Your task to perform on an android device: change keyboard looks Image 0: 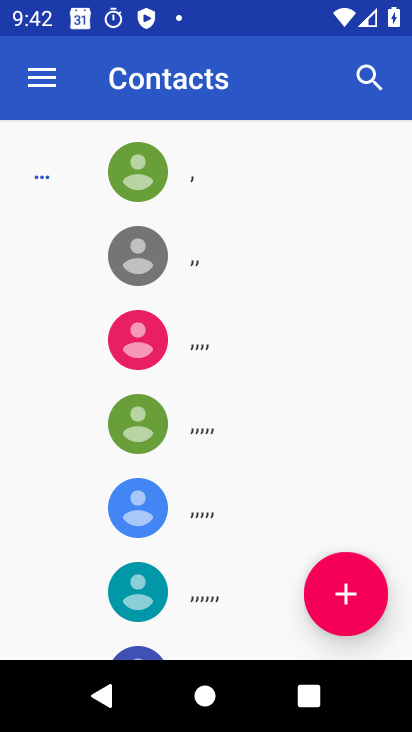
Step 0: drag from (180, 616) to (297, 261)
Your task to perform on an android device: change keyboard looks Image 1: 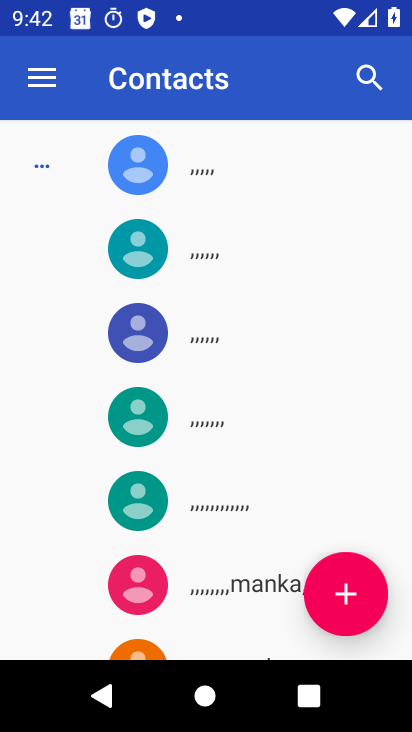
Step 1: press home button
Your task to perform on an android device: change keyboard looks Image 2: 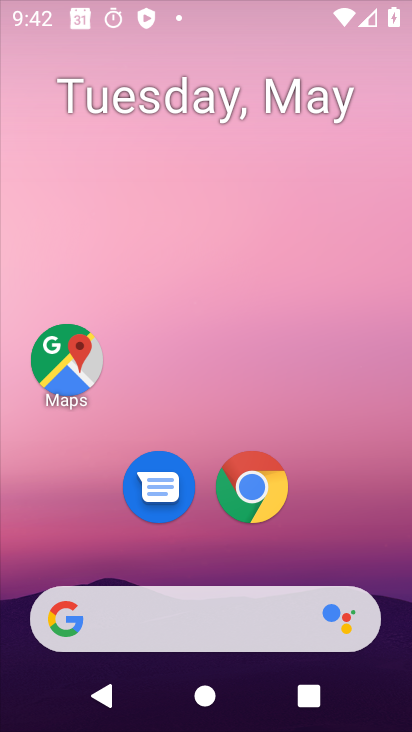
Step 2: drag from (178, 605) to (247, 179)
Your task to perform on an android device: change keyboard looks Image 3: 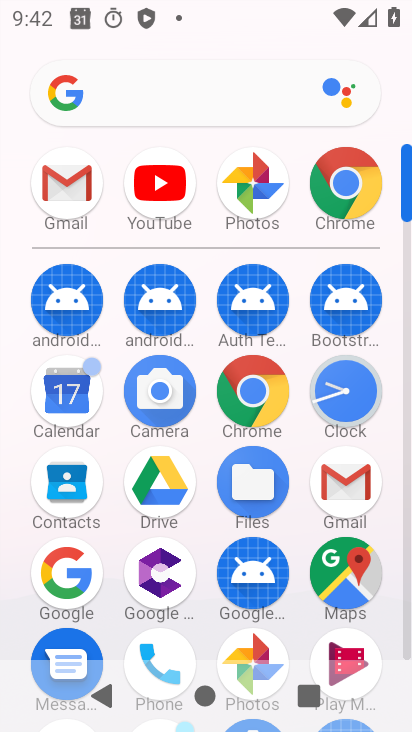
Step 3: drag from (199, 651) to (219, 252)
Your task to perform on an android device: change keyboard looks Image 4: 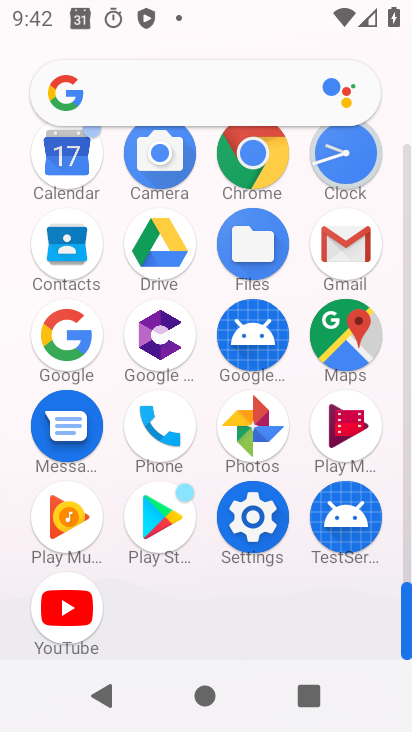
Step 4: click (244, 512)
Your task to perform on an android device: change keyboard looks Image 5: 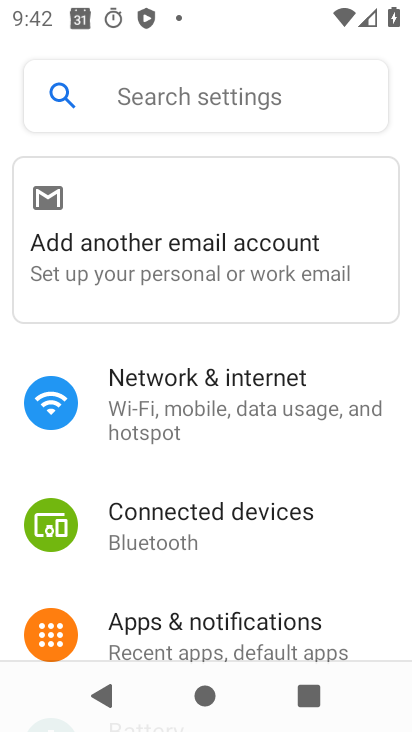
Step 5: drag from (110, 634) to (275, 80)
Your task to perform on an android device: change keyboard looks Image 6: 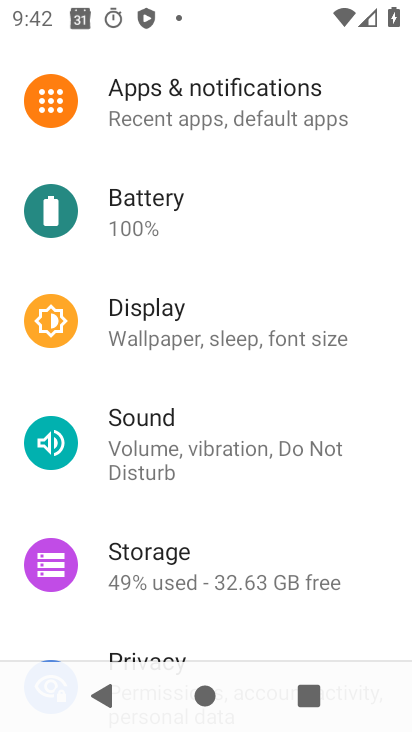
Step 6: drag from (202, 547) to (319, 89)
Your task to perform on an android device: change keyboard looks Image 7: 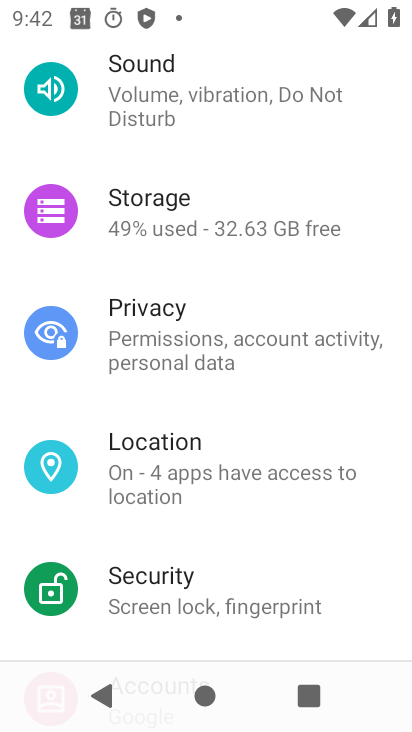
Step 7: drag from (204, 558) to (329, 117)
Your task to perform on an android device: change keyboard looks Image 8: 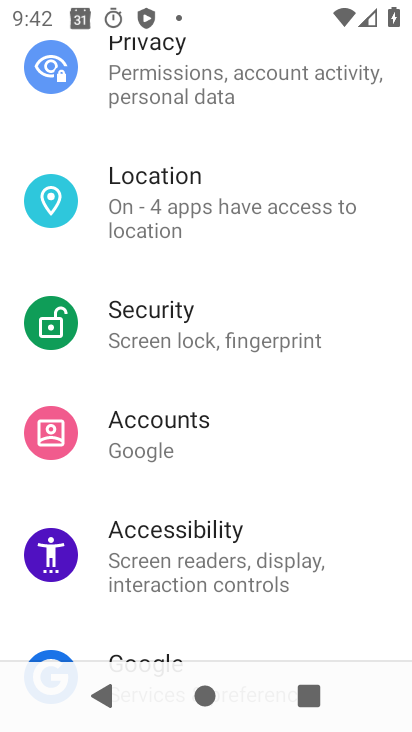
Step 8: drag from (227, 508) to (315, 187)
Your task to perform on an android device: change keyboard looks Image 9: 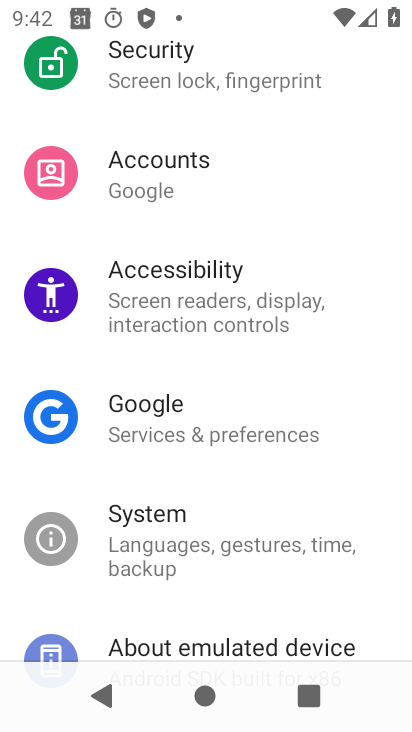
Step 9: click (164, 546)
Your task to perform on an android device: change keyboard looks Image 10: 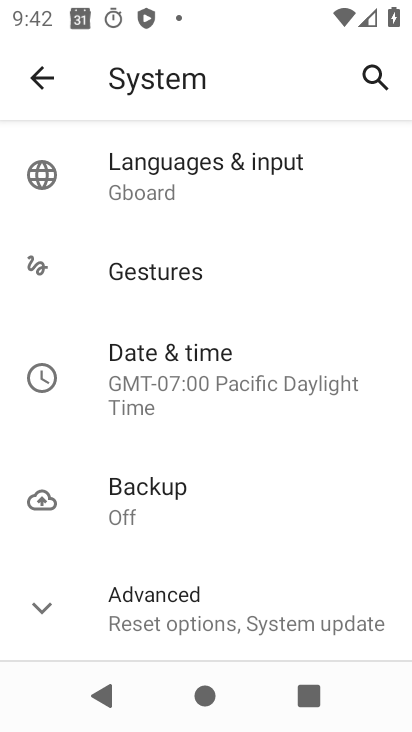
Step 10: drag from (228, 496) to (259, 72)
Your task to perform on an android device: change keyboard looks Image 11: 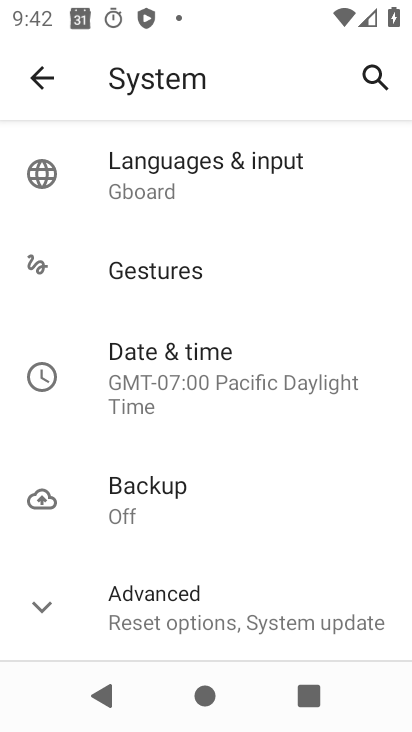
Step 11: drag from (202, 533) to (290, 215)
Your task to perform on an android device: change keyboard looks Image 12: 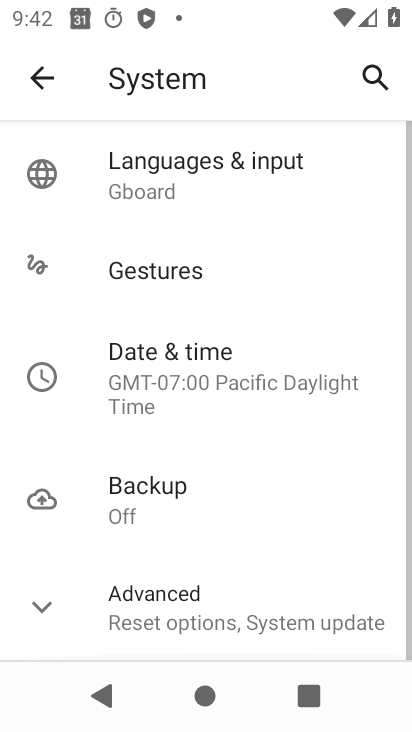
Step 12: click (230, 192)
Your task to perform on an android device: change keyboard looks Image 13: 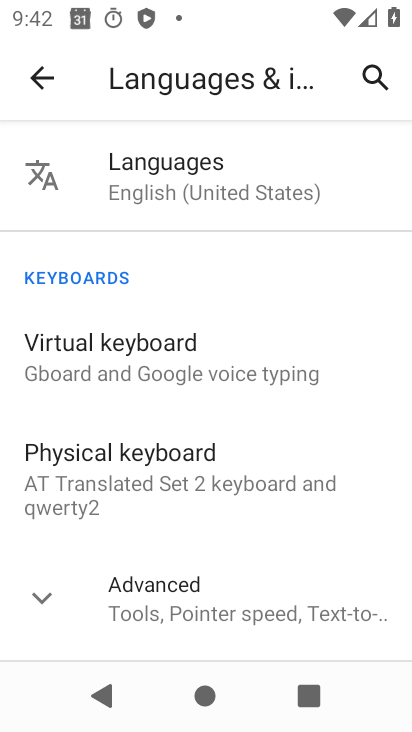
Step 13: click (181, 358)
Your task to perform on an android device: change keyboard looks Image 14: 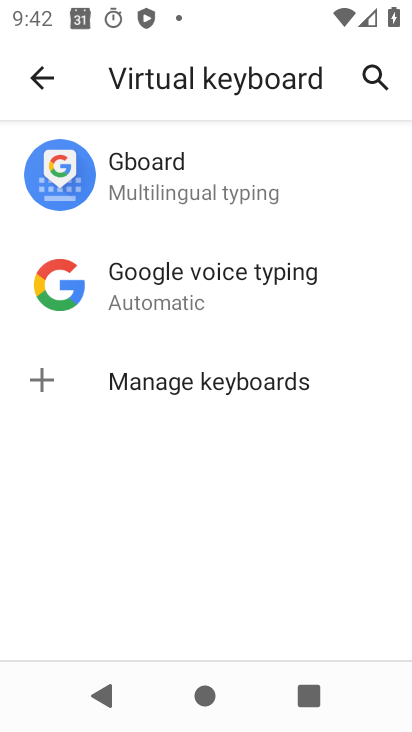
Step 14: click (213, 175)
Your task to perform on an android device: change keyboard looks Image 15: 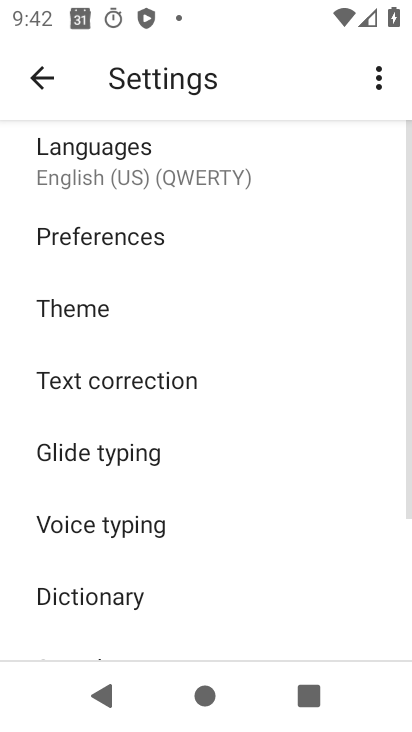
Step 15: click (103, 313)
Your task to perform on an android device: change keyboard looks Image 16: 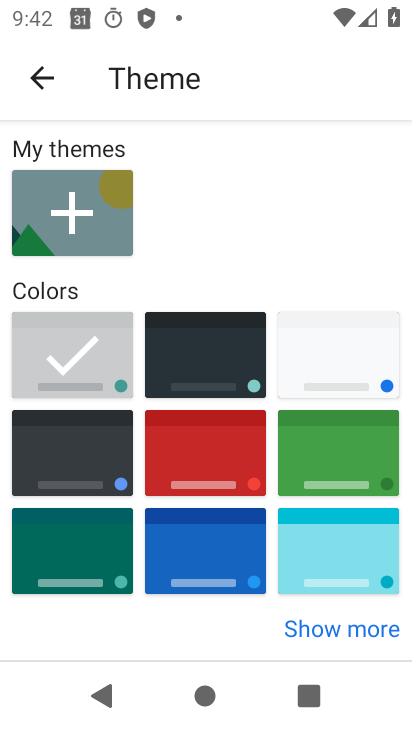
Step 16: click (320, 447)
Your task to perform on an android device: change keyboard looks Image 17: 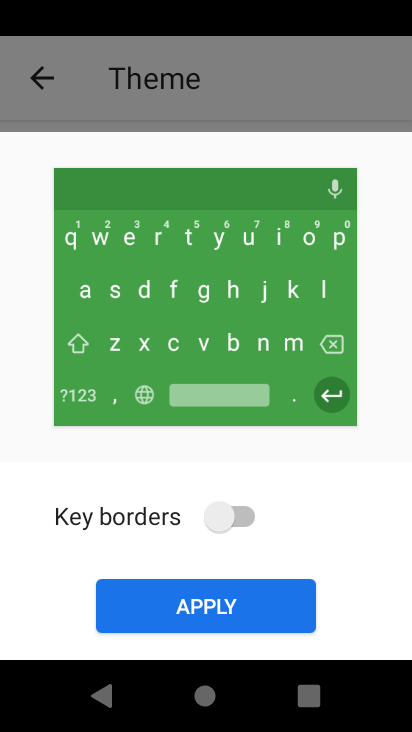
Step 17: click (193, 626)
Your task to perform on an android device: change keyboard looks Image 18: 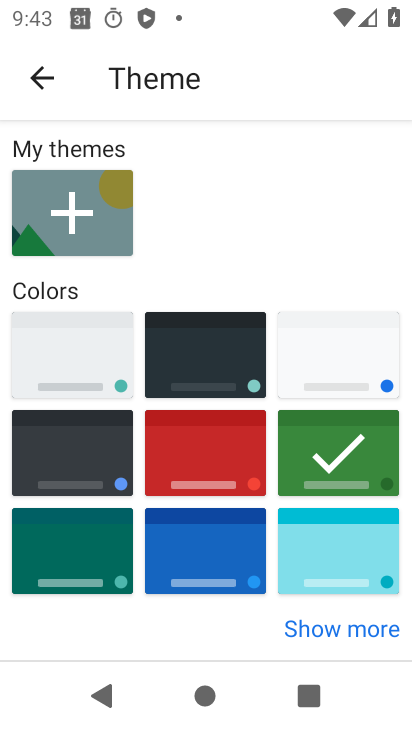
Step 18: task complete